Your task to perform on an android device: make emails show in primary in the gmail app Image 0: 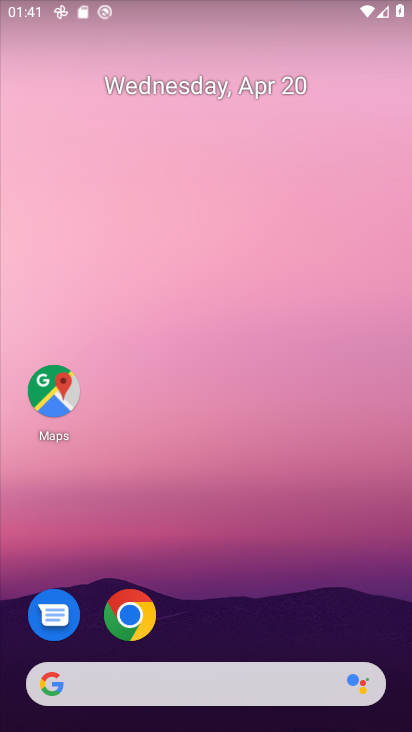
Step 0: drag from (378, 434) to (366, 150)
Your task to perform on an android device: make emails show in primary in the gmail app Image 1: 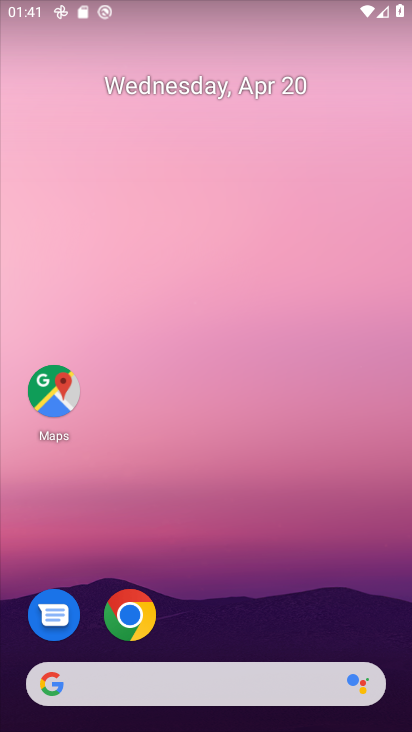
Step 1: drag from (362, 249) to (362, 184)
Your task to perform on an android device: make emails show in primary in the gmail app Image 2: 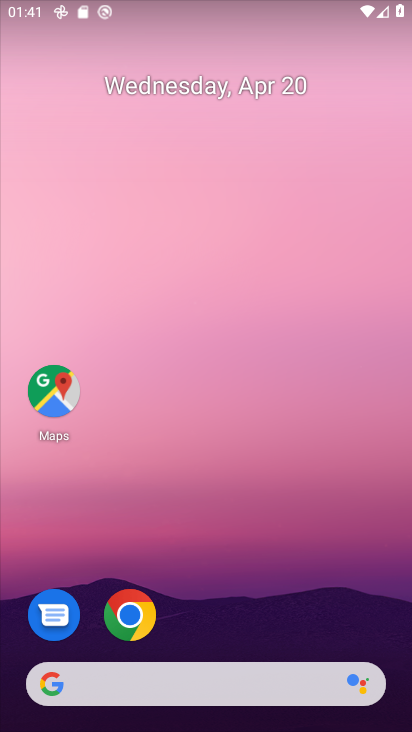
Step 2: drag from (373, 564) to (376, 129)
Your task to perform on an android device: make emails show in primary in the gmail app Image 3: 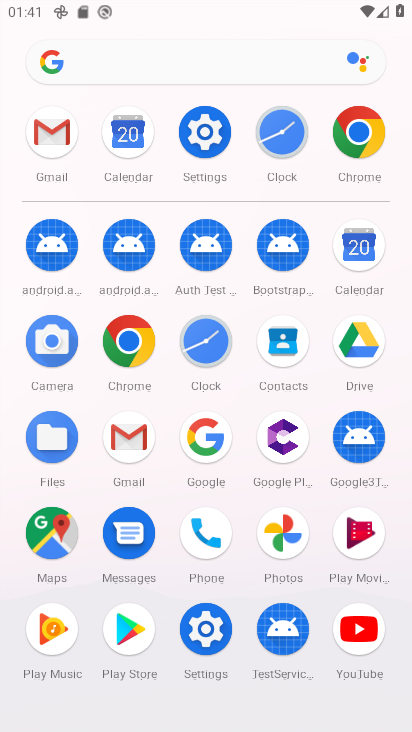
Step 3: click (58, 134)
Your task to perform on an android device: make emails show in primary in the gmail app Image 4: 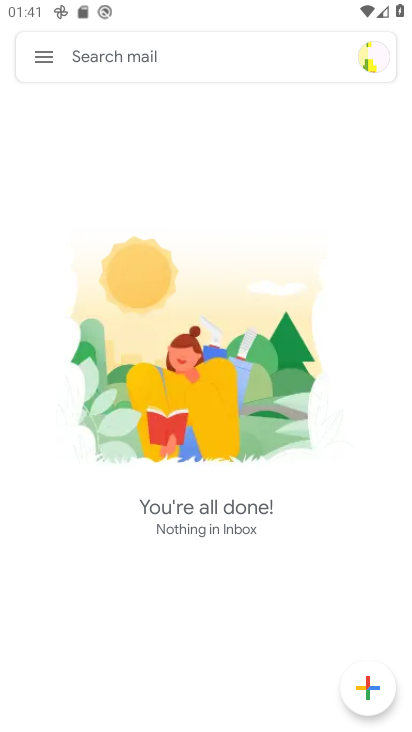
Step 4: click (41, 40)
Your task to perform on an android device: make emails show in primary in the gmail app Image 5: 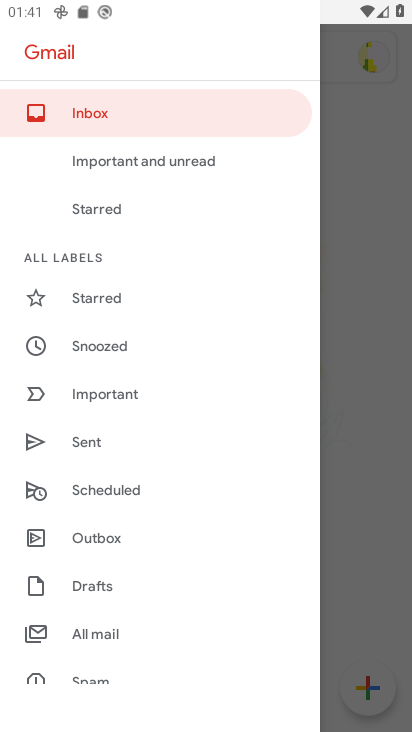
Step 5: drag from (193, 647) to (198, 232)
Your task to perform on an android device: make emails show in primary in the gmail app Image 6: 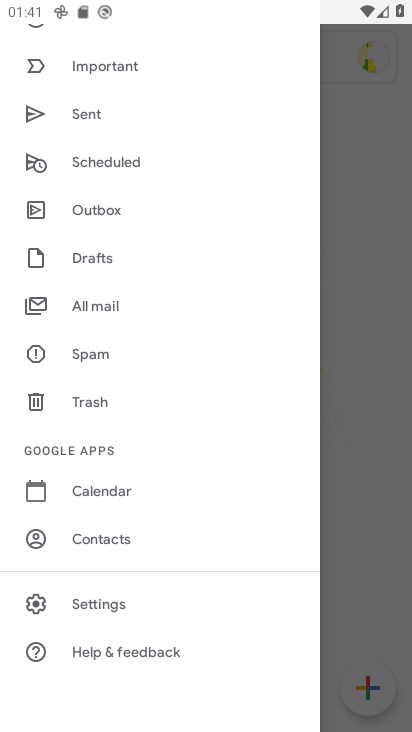
Step 6: click (96, 596)
Your task to perform on an android device: make emails show in primary in the gmail app Image 7: 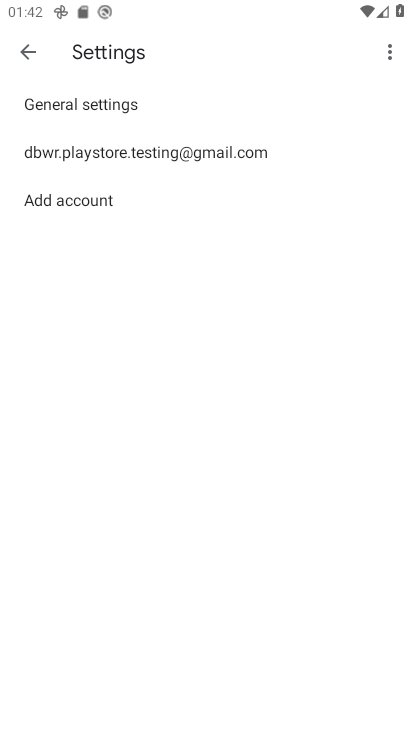
Step 7: click (88, 151)
Your task to perform on an android device: make emails show in primary in the gmail app Image 8: 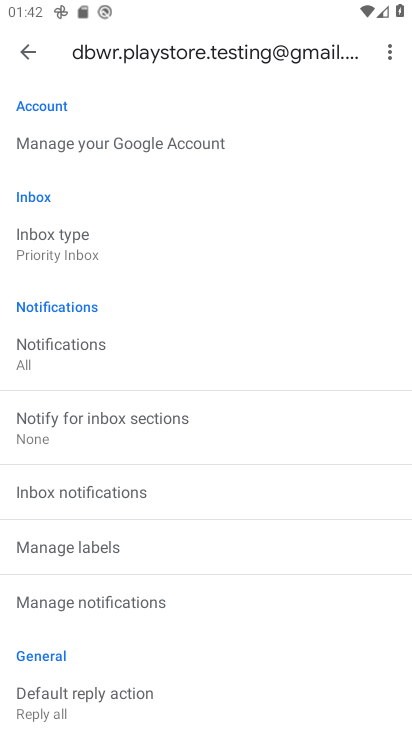
Step 8: click (37, 248)
Your task to perform on an android device: make emails show in primary in the gmail app Image 9: 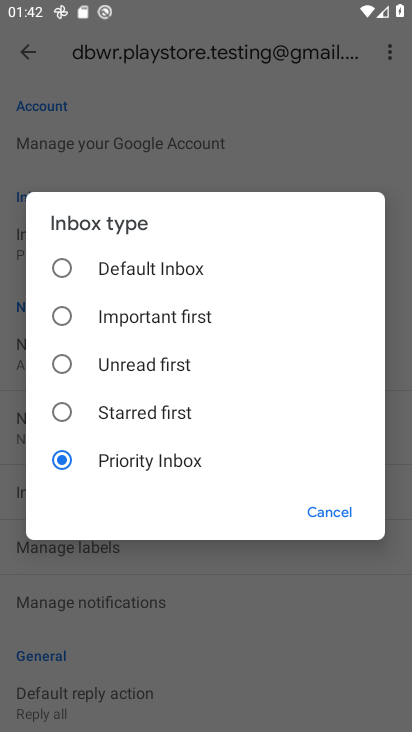
Step 9: click (68, 262)
Your task to perform on an android device: make emails show in primary in the gmail app Image 10: 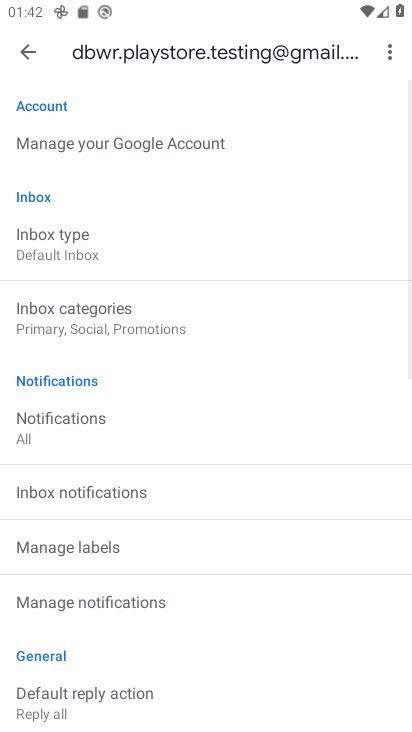
Step 10: click (61, 317)
Your task to perform on an android device: make emails show in primary in the gmail app Image 11: 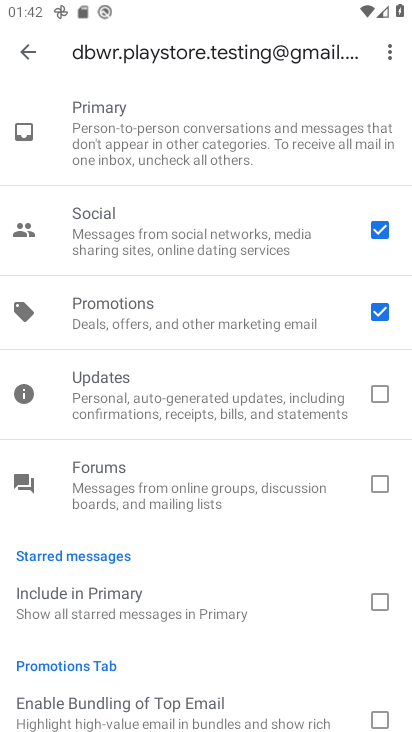
Step 11: click (373, 301)
Your task to perform on an android device: make emails show in primary in the gmail app Image 12: 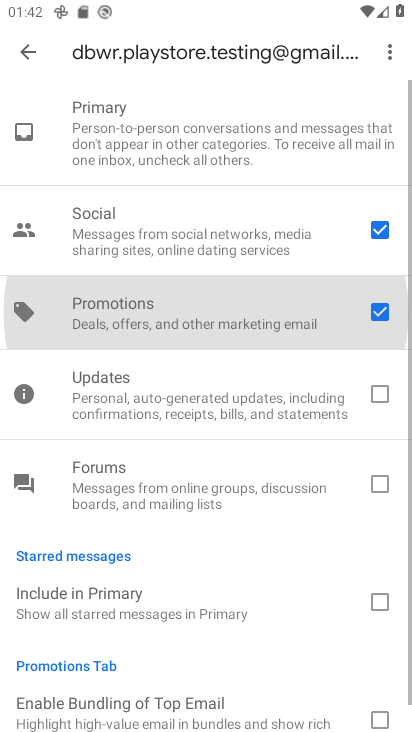
Step 12: click (380, 218)
Your task to perform on an android device: make emails show in primary in the gmail app Image 13: 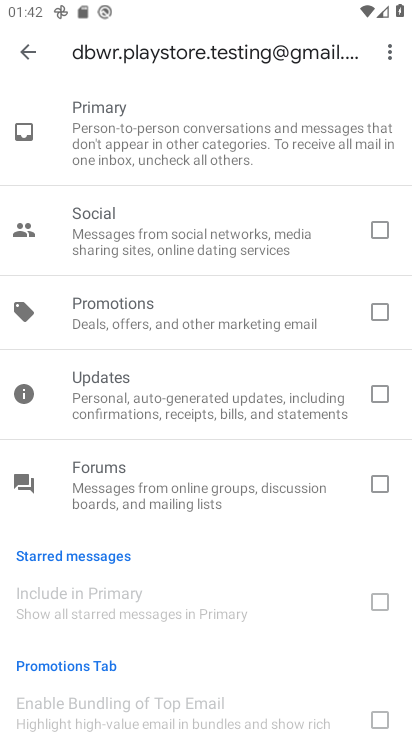
Step 13: click (17, 51)
Your task to perform on an android device: make emails show in primary in the gmail app Image 14: 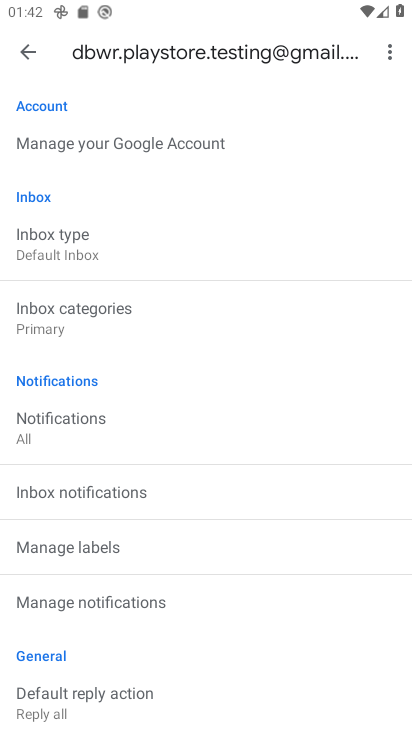
Step 14: task complete